Your task to perform on an android device: Open calendar and show me the fourth week of next month Image 0: 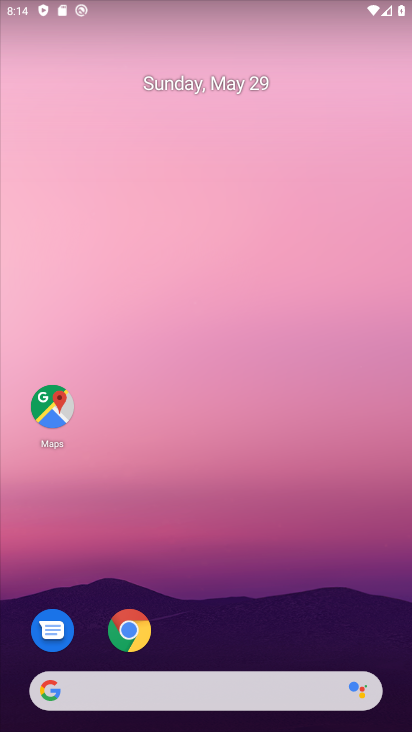
Step 0: drag from (395, 700) to (341, 93)
Your task to perform on an android device: Open calendar and show me the fourth week of next month Image 1: 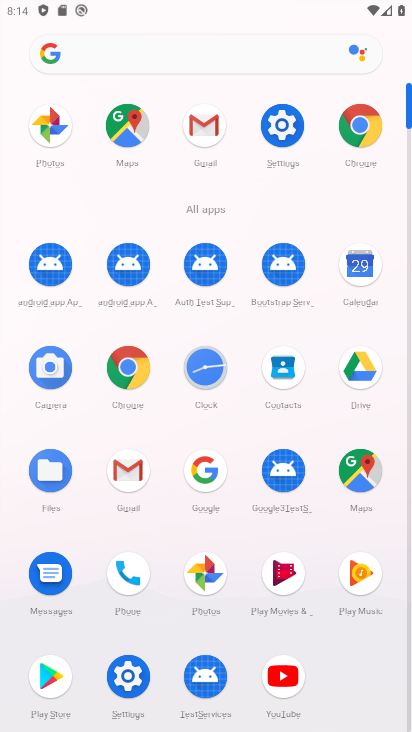
Step 1: click (388, 254)
Your task to perform on an android device: Open calendar and show me the fourth week of next month Image 2: 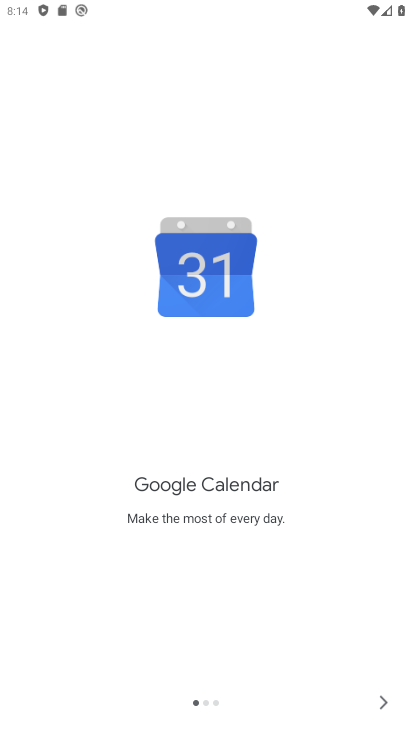
Step 2: click (381, 707)
Your task to perform on an android device: Open calendar and show me the fourth week of next month Image 3: 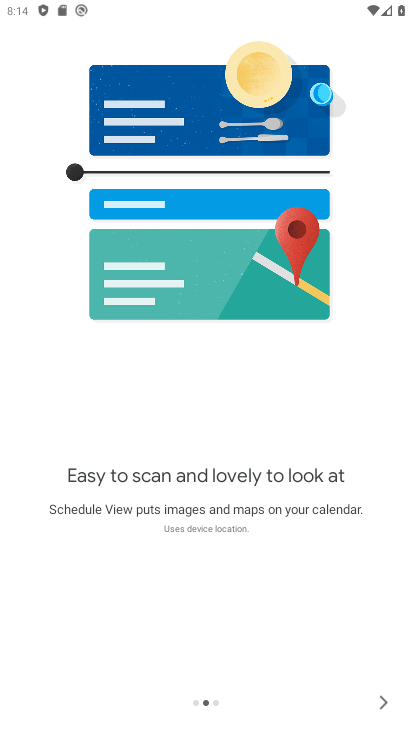
Step 3: click (381, 705)
Your task to perform on an android device: Open calendar and show me the fourth week of next month Image 4: 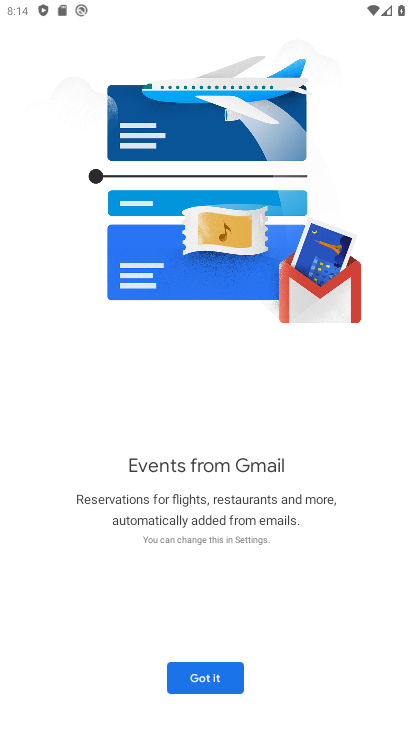
Step 4: click (183, 670)
Your task to perform on an android device: Open calendar and show me the fourth week of next month Image 5: 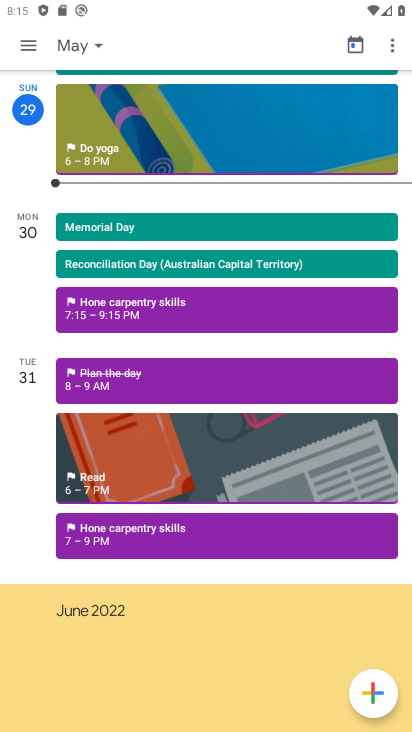
Step 5: click (97, 39)
Your task to perform on an android device: Open calendar and show me the fourth week of next month Image 6: 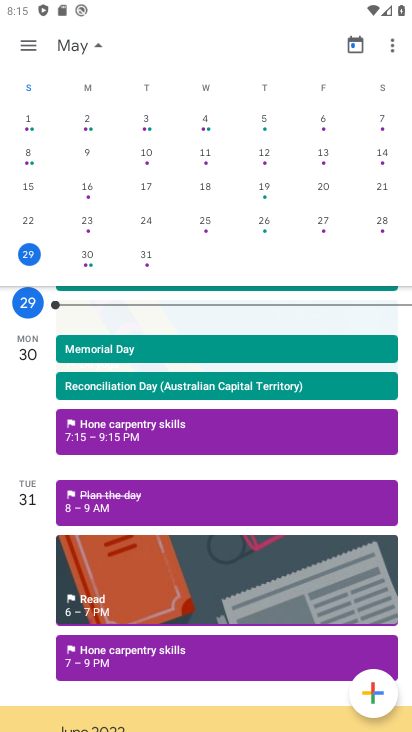
Step 6: drag from (396, 168) to (26, 175)
Your task to perform on an android device: Open calendar and show me the fourth week of next month Image 7: 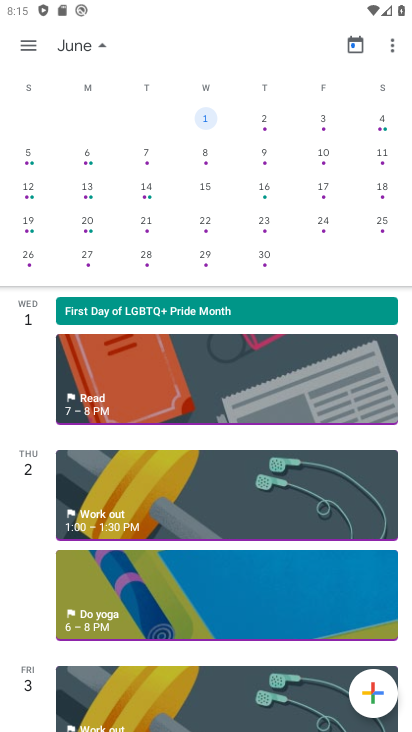
Step 7: click (205, 224)
Your task to perform on an android device: Open calendar and show me the fourth week of next month Image 8: 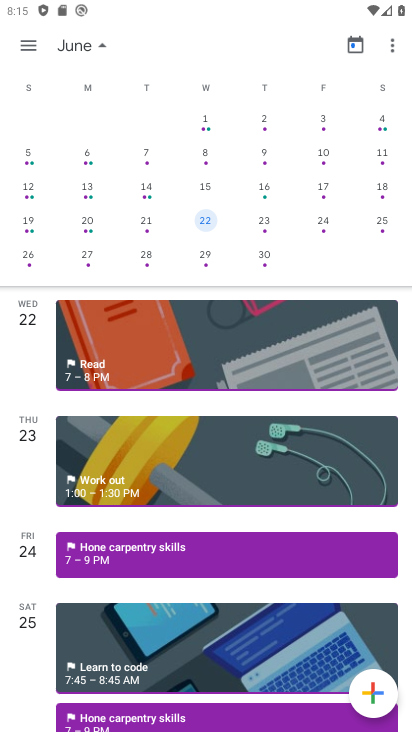
Step 8: click (31, 45)
Your task to perform on an android device: Open calendar and show me the fourth week of next month Image 9: 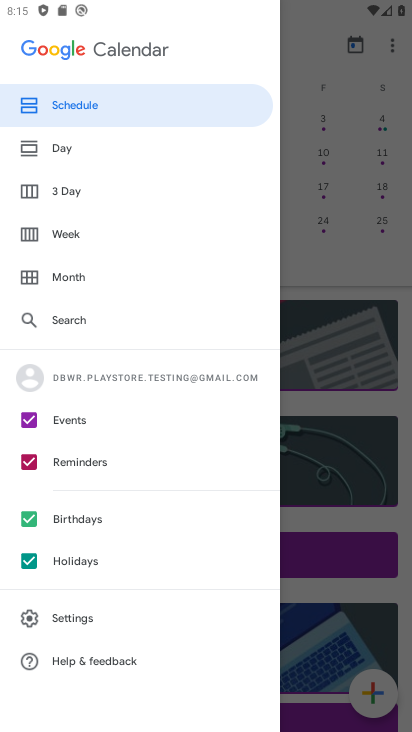
Step 9: click (54, 233)
Your task to perform on an android device: Open calendar and show me the fourth week of next month Image 10: 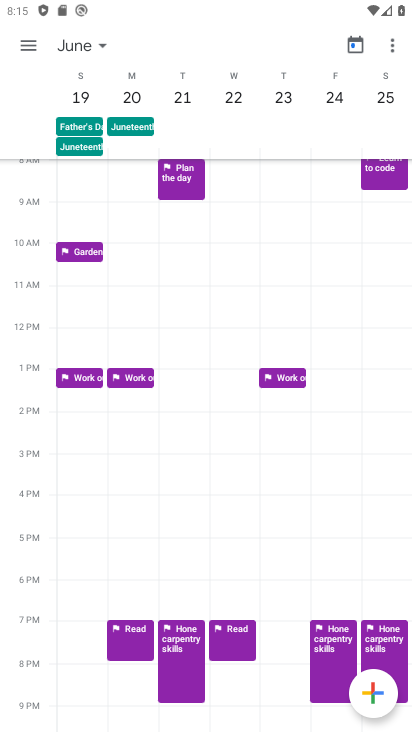
Step 10: task complete